Your task to perform on an android device: Open internet settings Image 0: 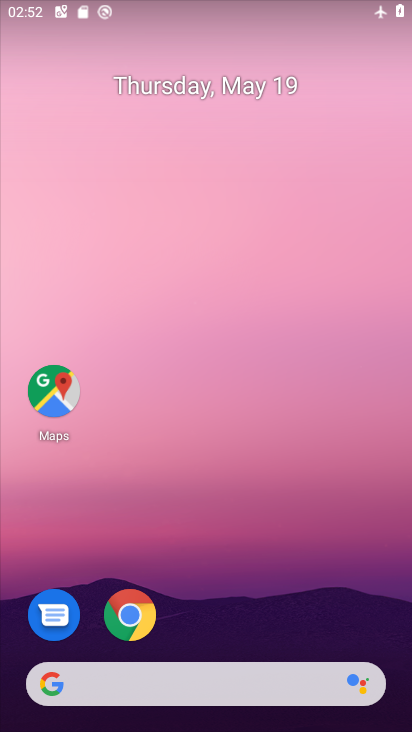
Step 0: click (255, 25)
Your task to perform on an android device: Open internet settings Image 1: 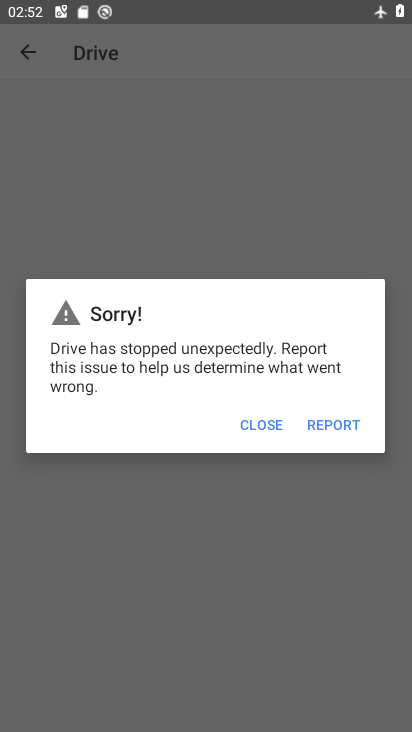
Step 1: press back button
Your task to perform on an android device: Open internet settings Image 2: 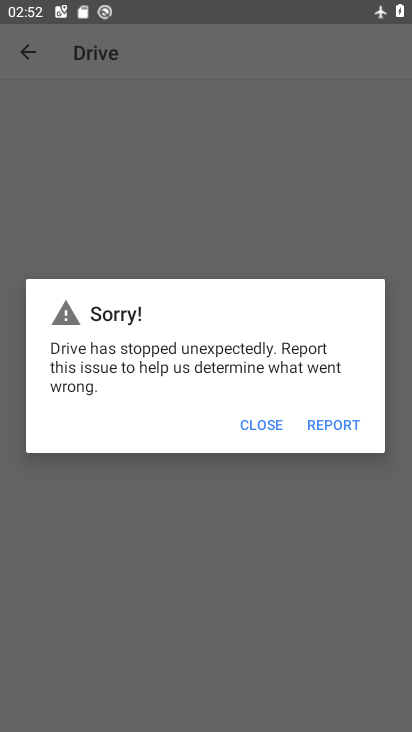
Step 2: press home button
Your task to perform on an android device: Open internet settings Image 3: 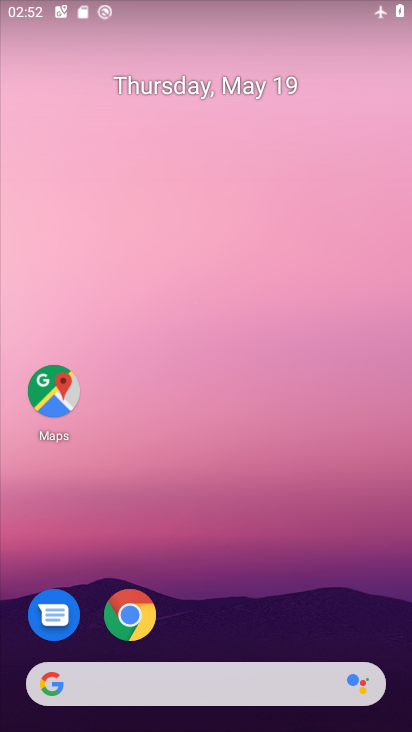
Step 3: drag from (240, 582) to (253, 4)
Your task to perform on an android device: Open internet settings Image 4: 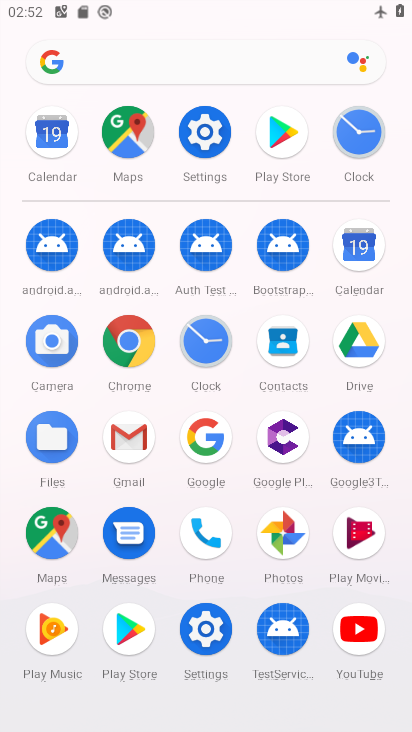
Step 4: drag from (12, 530) to (21, 241)
Your task to perform on an android device: Open internet settings Image 5: 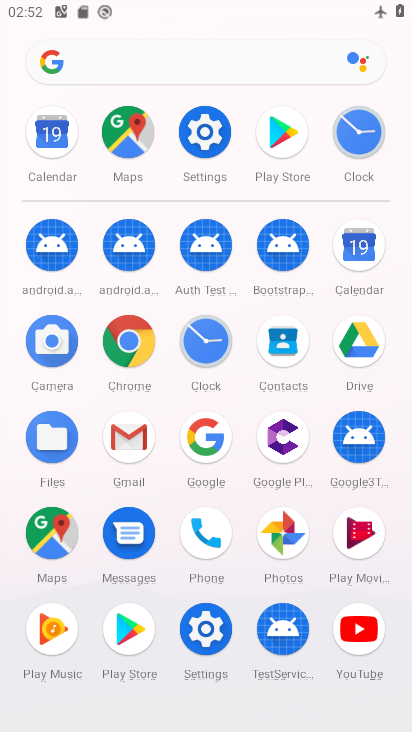
Step 5: click (200, 624)
Your task to perform on an android device: Open internet settings Image 6: 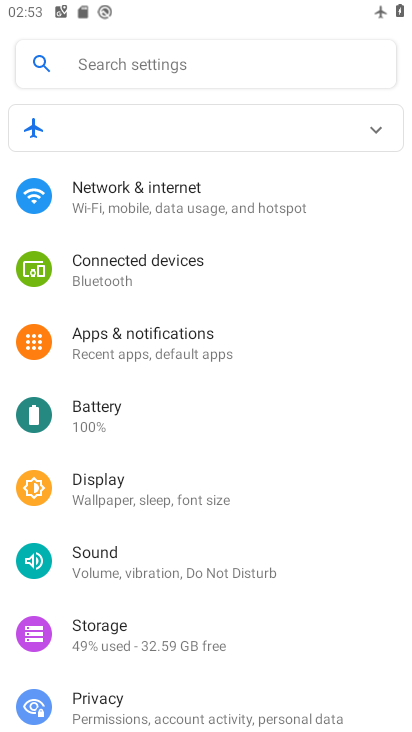
Step 6: click (194, 177)
Your task to perform on an android device: Open internet settings Image 7: 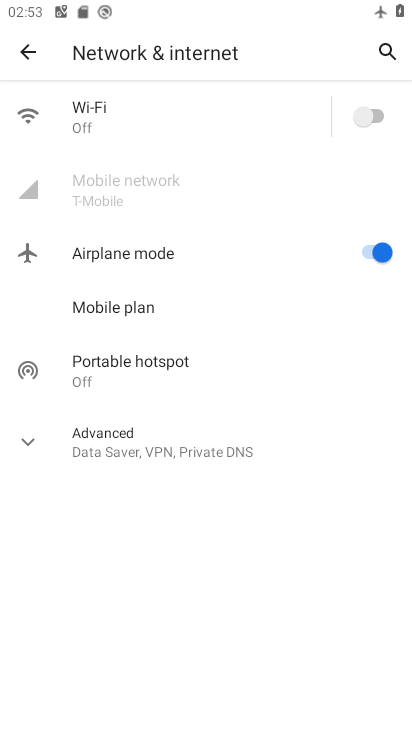
Step 7: click (28, 443)
Your task to perform on an android device: Open internet settings Image 8: 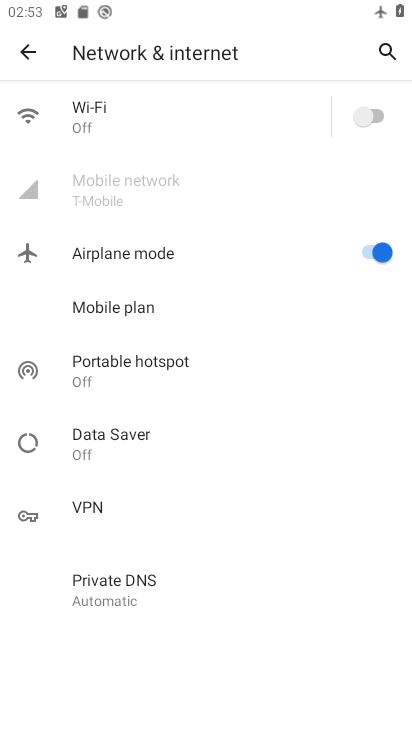
Step 8: task complete